Your task to perform on an android device: set the timer Image 0: 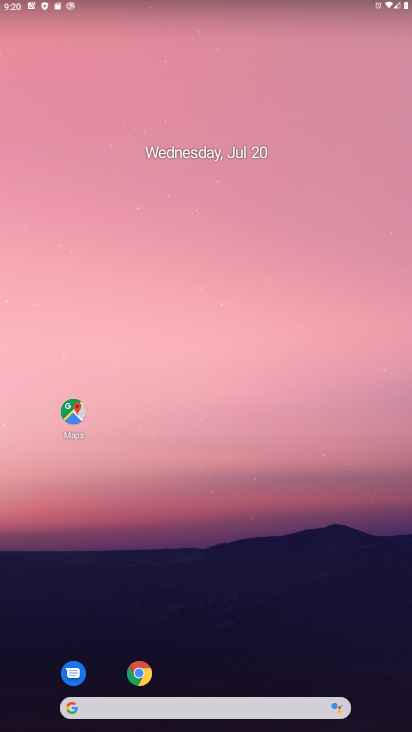
Step 0: drag from (227, 722) to (203, 162)
Your task to perform on an android device: set the timer Image 1: 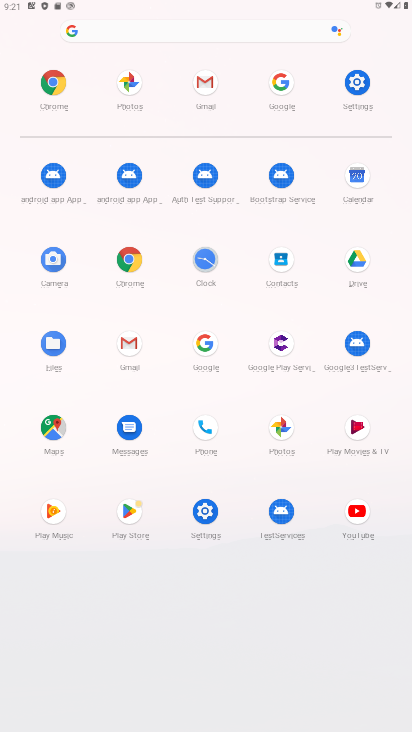
Step 1: click (201, 260)
Your task to perform on an android device: set the timer Image 2: 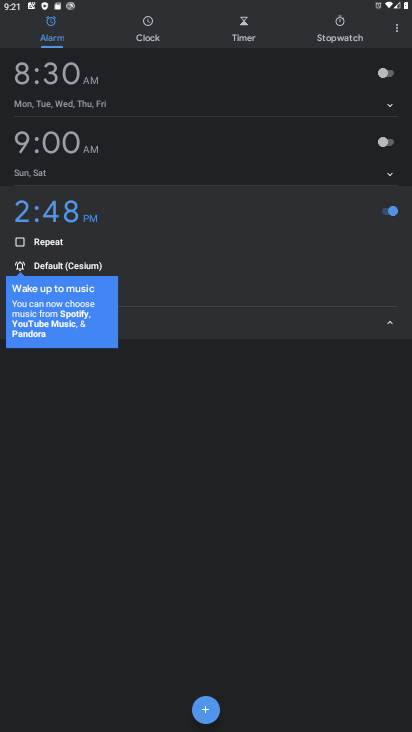
Step 2: click (246, 29)
Your task to perform on an android device: set the timer Image 3: 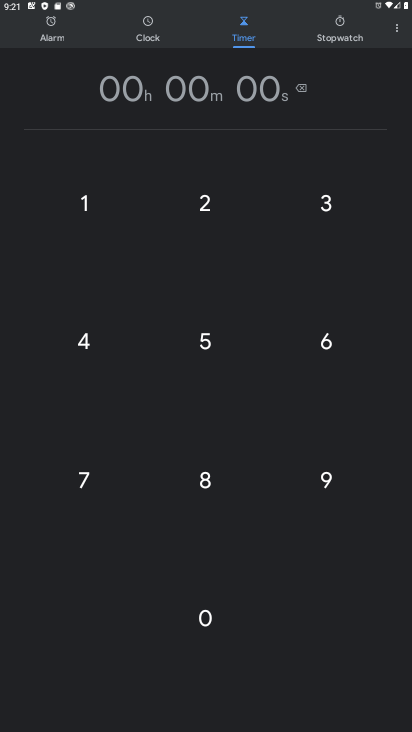
Step 3: click (209, 203)
Your task to perform on an android device: set the timer Image 4: 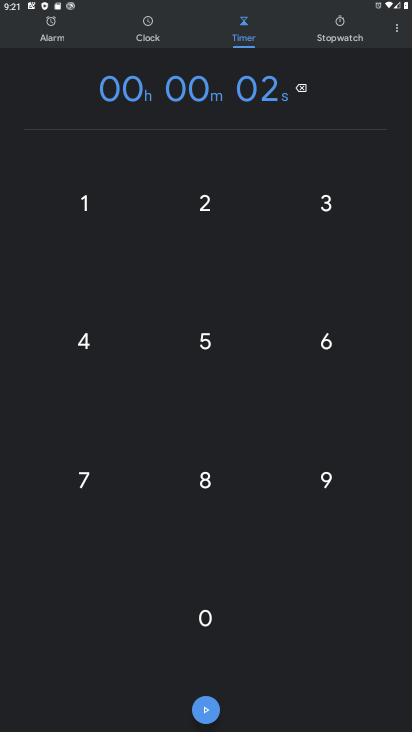
Step 4: click (207, 348)
Your task to perform on an android device: set the timer Image 5: 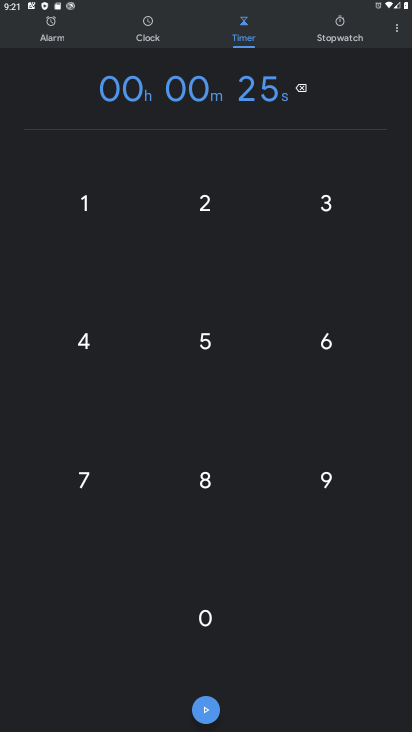
Step 5: click (213, 467)
Your task to perform on an android device: set the timer Image 6: 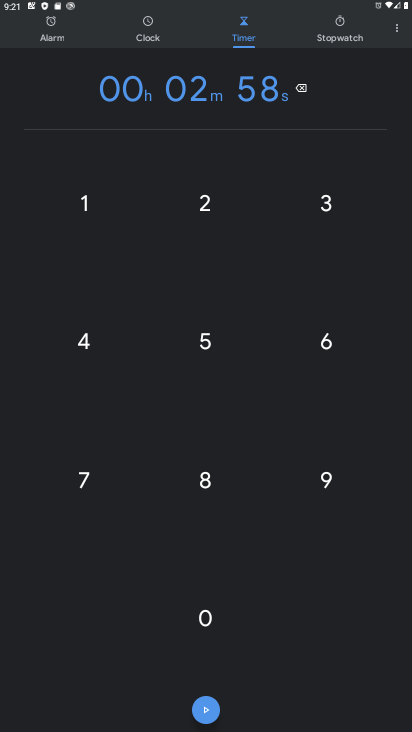
Step 6: click (205, 714)
Your task to perform on an android device: set the timer Image 7: 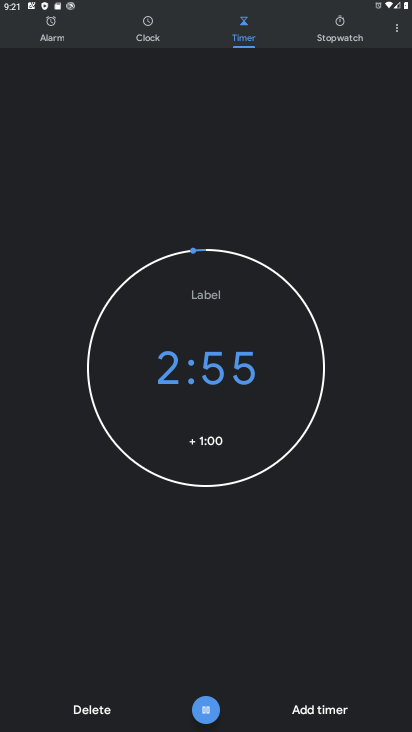
Step 7: task complete